Your task to perform on an android device: add a contact Image 0: 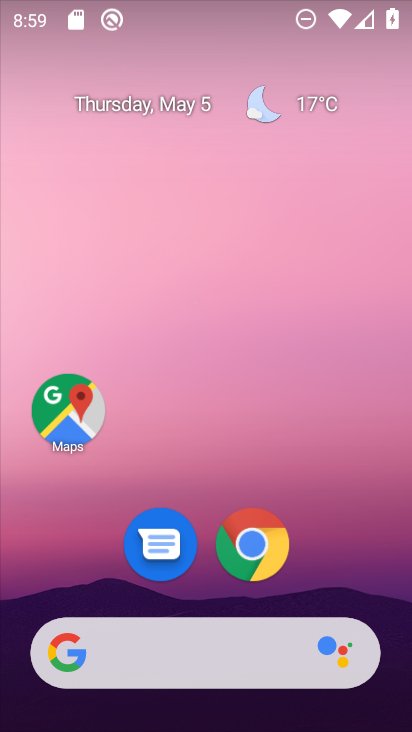
Step 0: drag from (382, 619) to (256, 56)
Your task to perform on an android device: add a contact Image 1: 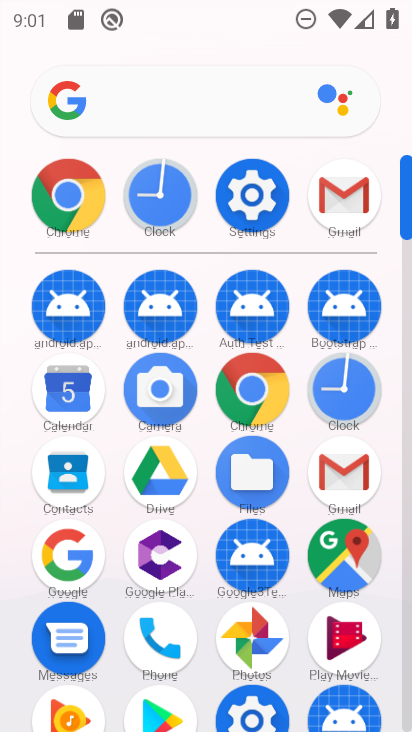
Step 1: click (66, 484)
Your task to perform on an android device: add a contact Image 2: 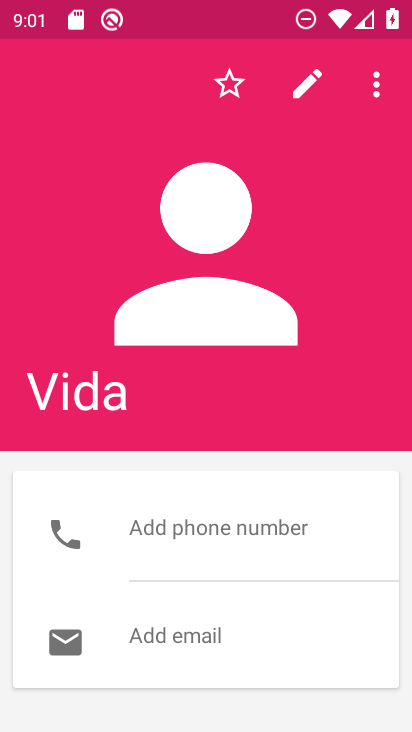
Step 2: press back button
Your task to perform on an android device: add a contact Image 3: 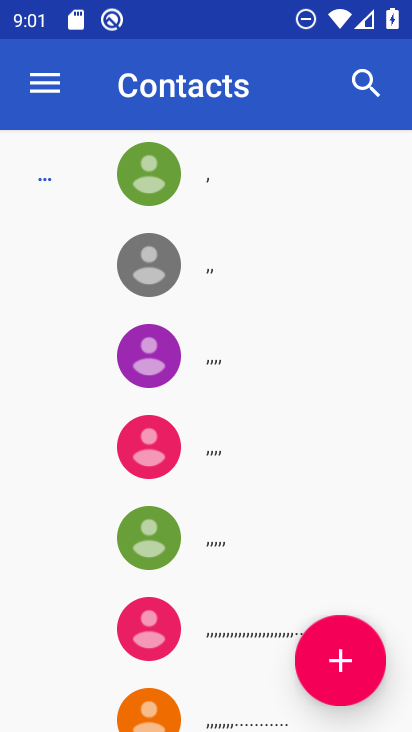
Step 3: click (331, 679)
Your task to perform on an android device: add a contact Image 4: 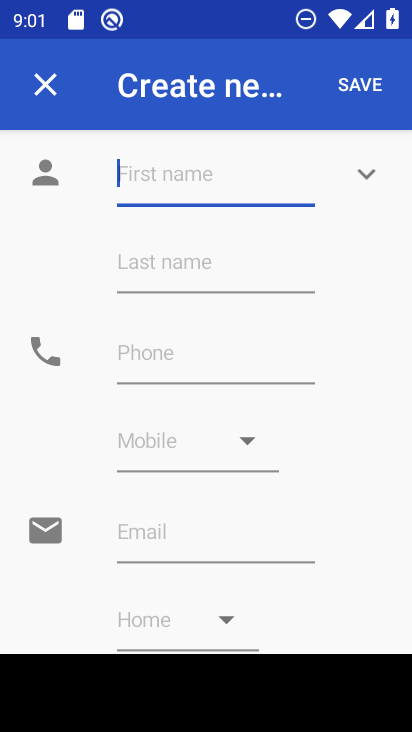
Step 4: type "mami"
Your task to perform on an android device: add a contact Image 5: 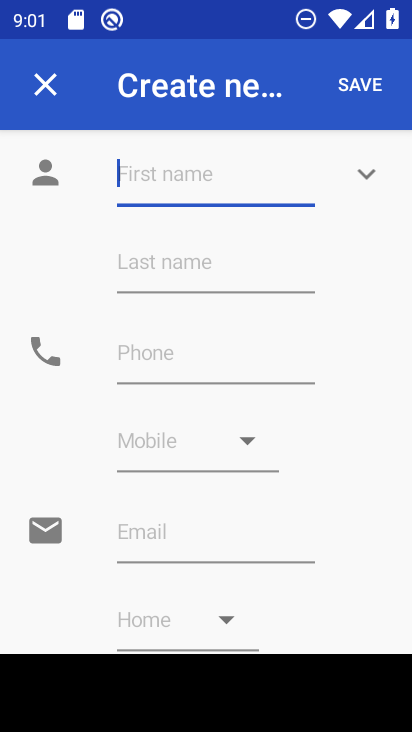
Step 5: click (358, 83)
Your task to perform on an android device: add a contact Image 6: 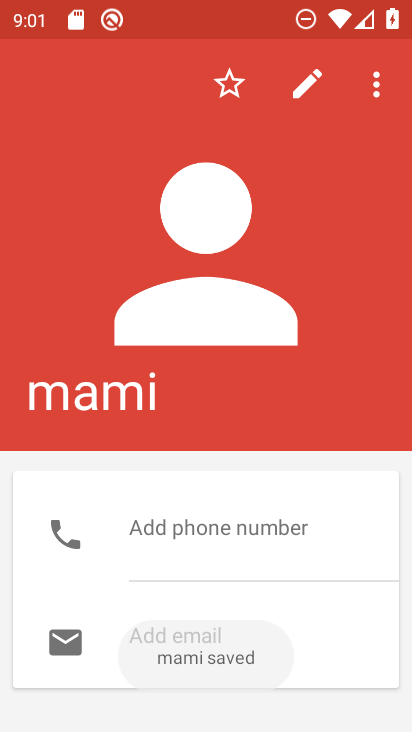
Step 6: task complete